Your task to perform on an android device: What's the weather going to be tomorrow? Image 0: 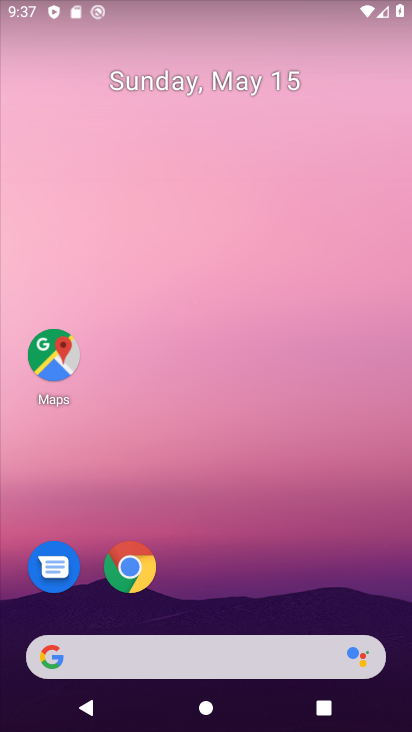
Step 0: drag from (57, 350) to (278, 277)
Your task to perform on an android device: What's the weather going to be tomorrow? Image 1: 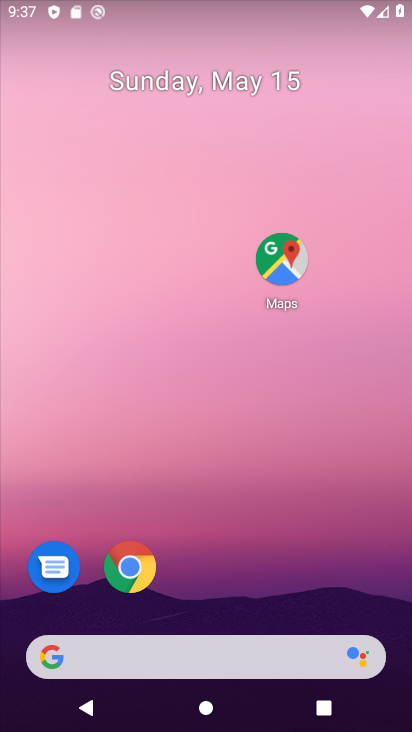
Step 1: drag from (234, 518) to (182, 75)
Your task to perform on an android device: What's the weather going to be tomorrow? Image 2: 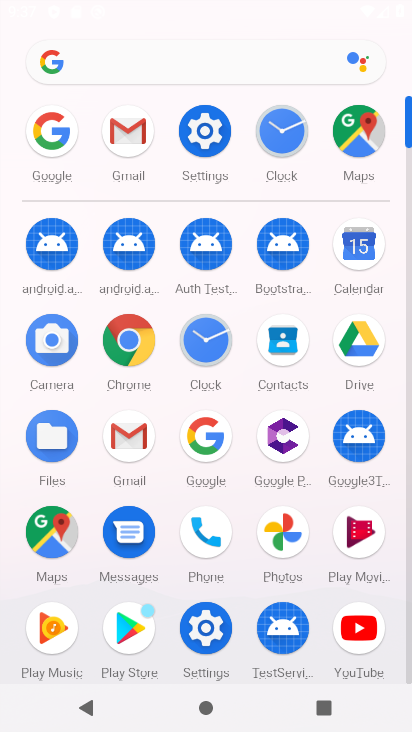
Step 2: click (54, 128)
Your task to perform on an android device: What's the weather going to be tomorrow? Image 3: 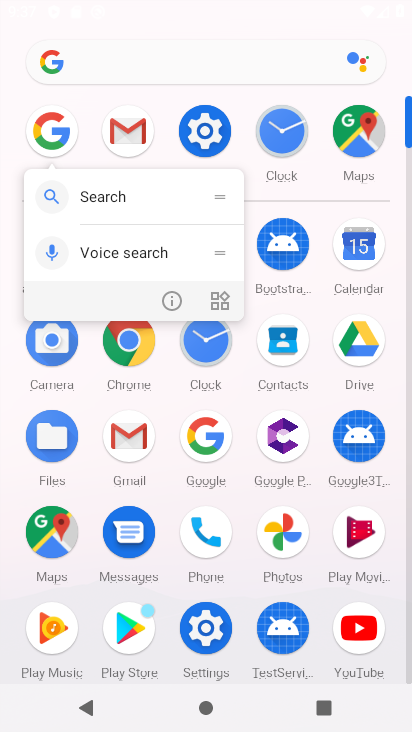
Step 3: click (61, 131)
Your task to perform on an android device: What's the weather going to be tomorrow? Image 4: 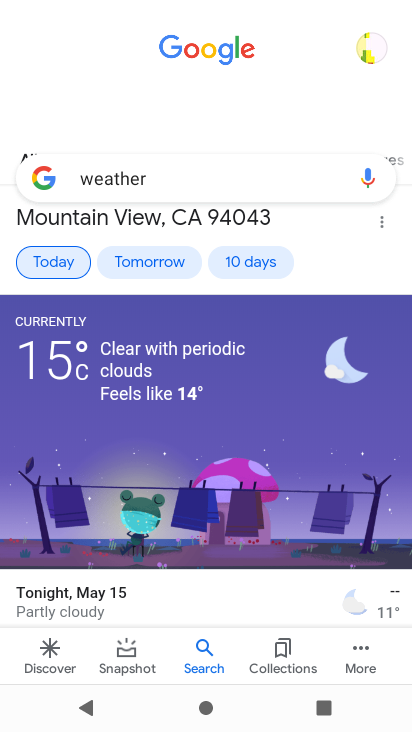
Step 4: click (248, 171)
Your task to perform on an android device: What's the weather going to be tomorrow? Image 5: 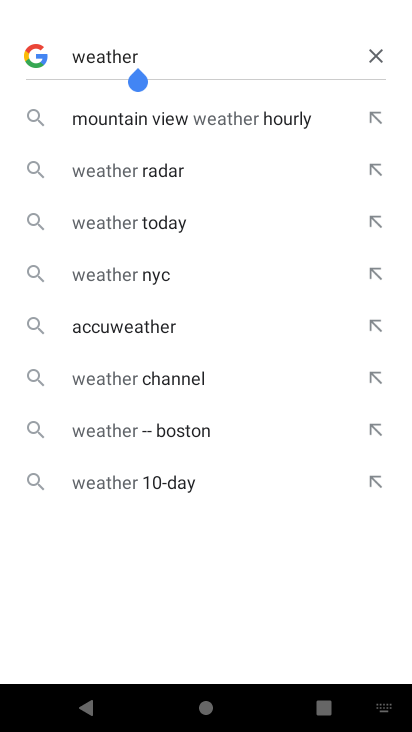
Step 5: click (383, 54)
Your task to perform on an android device: What's the weather going to be tomorrow? Image 6: 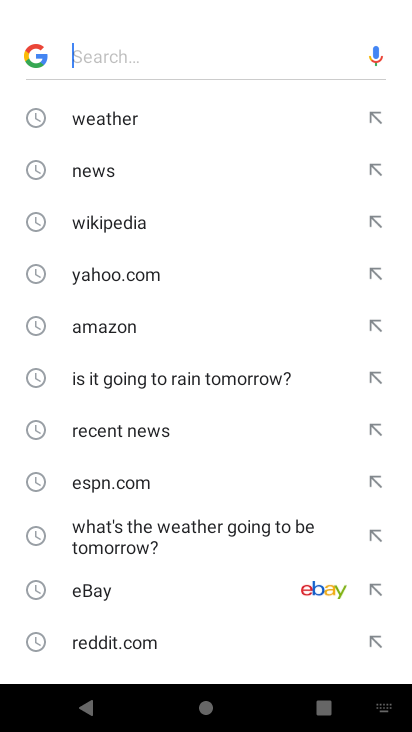
Step 6: click (165, 531)
Your task to perform on an android device: What's the weather going to be tomorrow? Image 7: 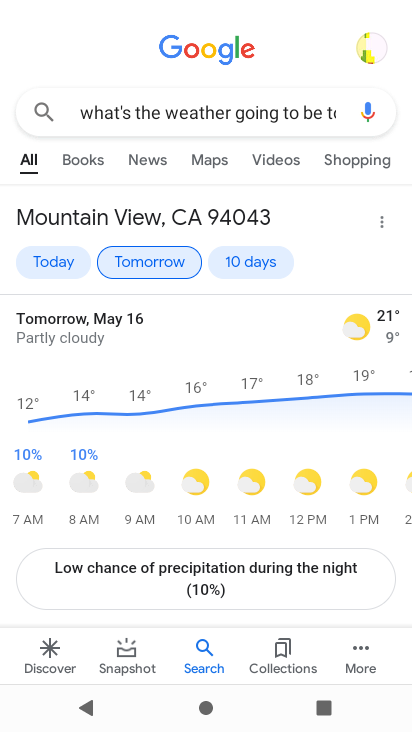
Step 7: task complete